Your task to perform on an android device: change keyboard looks Image 0: 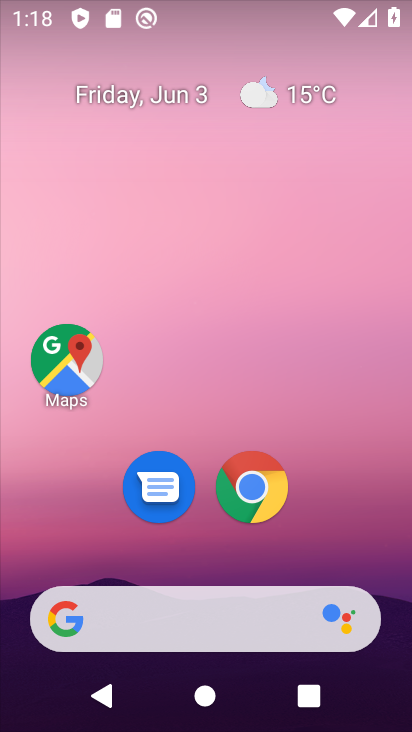
Step 0: drag from (158, 729) to (204, 85)
Your task to perform on an android device: change keyboard looks Image 1: 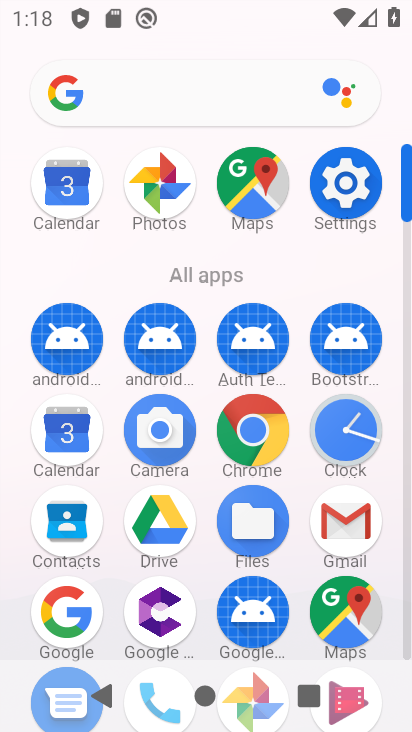
Step 1: click (366, 189)
Your task to perform on an android device: change keyboard looks Image 2: 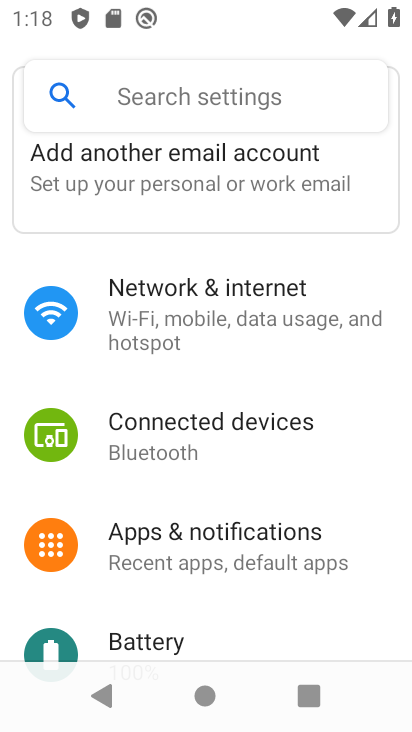
Step 2: drag from (285, 618) to (262, 225)
Your task to perform on an android device: change keyboard looks Image 3: 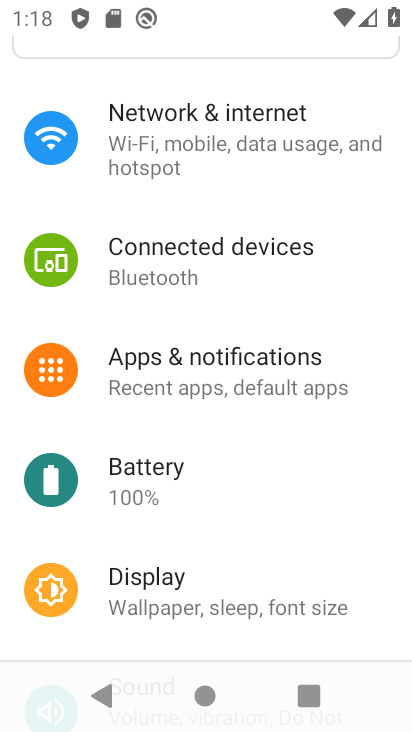
Step 3: drag from (262, 579) to (287, 292)
Your task to perform on an android device: change keyboard looks Image 4: 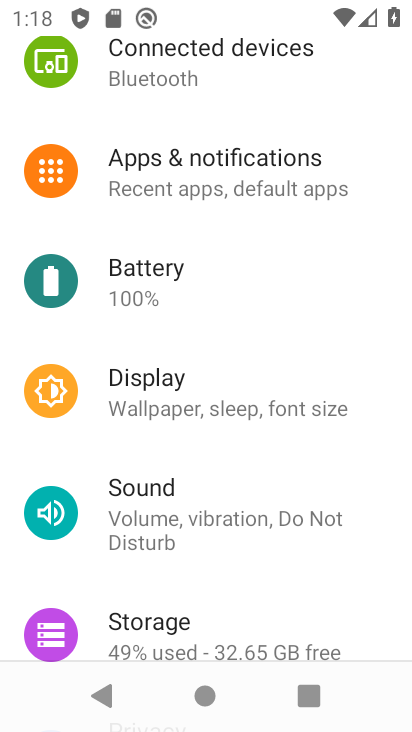
Step 4: drag from (242, 572) to (304, 223)
Your task to perform on an android device: change keyboard looks Image 5: 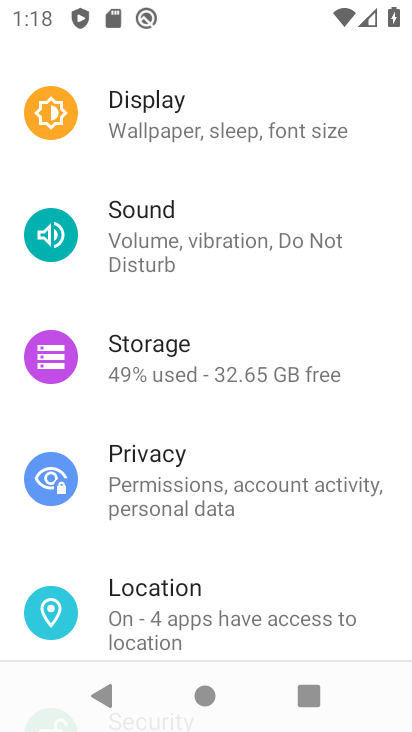
Step 5: drag from (282, 600) to (318, 294)
Your task to perform on an android device: change keyboard looks Image 6: 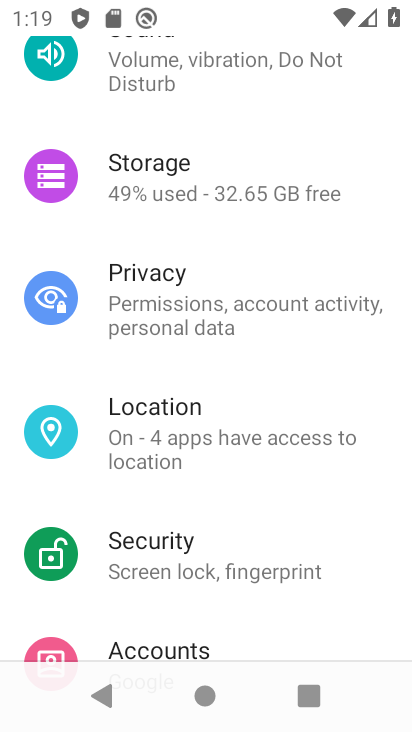
Step 6: drag from (245, 614) to (257, 361)
Your task to perform on an android device: change keyboard looks Image 7: 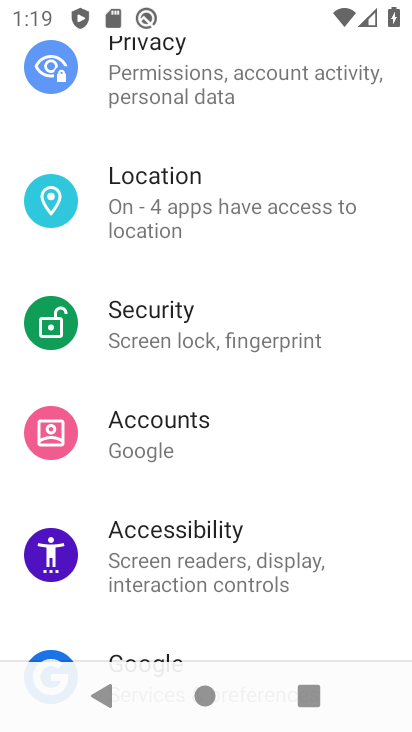
Step 7: drag from (207, 622) to (251, 292)
Your task to perform on an android device: change keyboard looks Image 8: 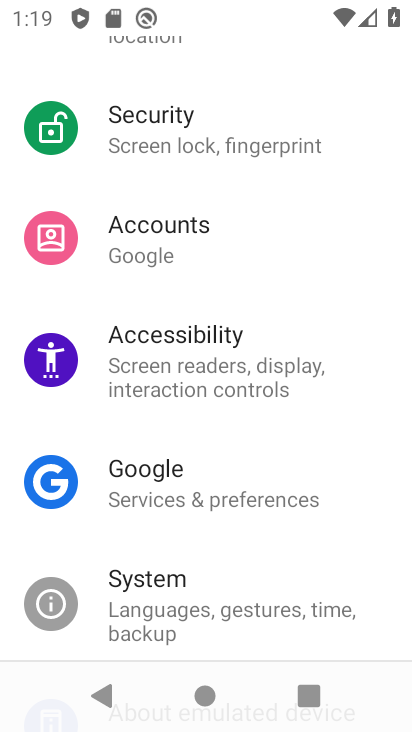
Step 8: click (157, 609)
Your task to perform on an android device: change keyboard looks Image 9: 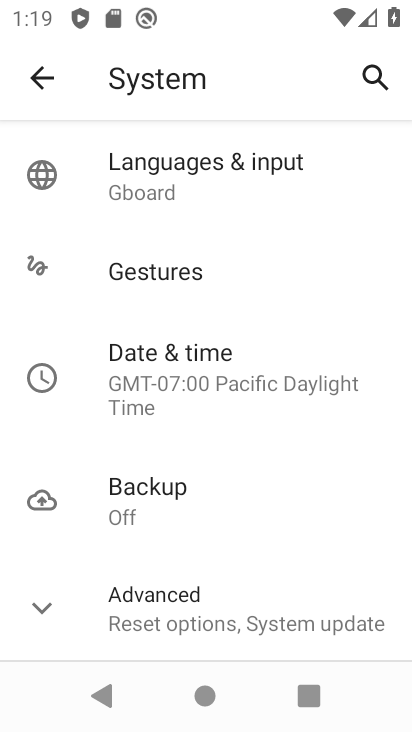
Step 9: click (172, 207)
Your task to perform on an android device: change keyboard looks Image 10: 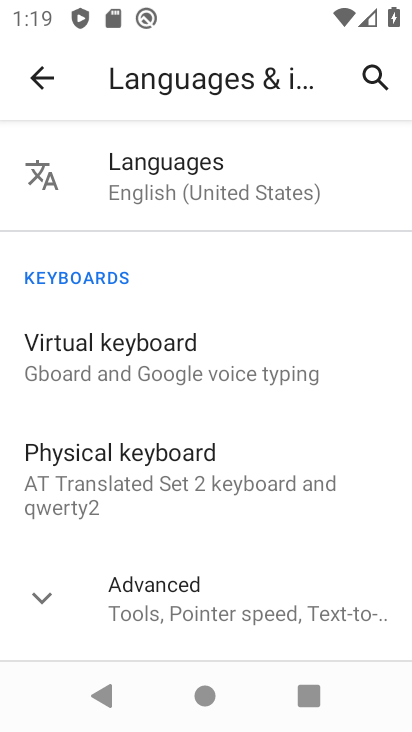
Step 10: click (104, 364)
Your task to perform on an android device: change keyboard looks Image 11: 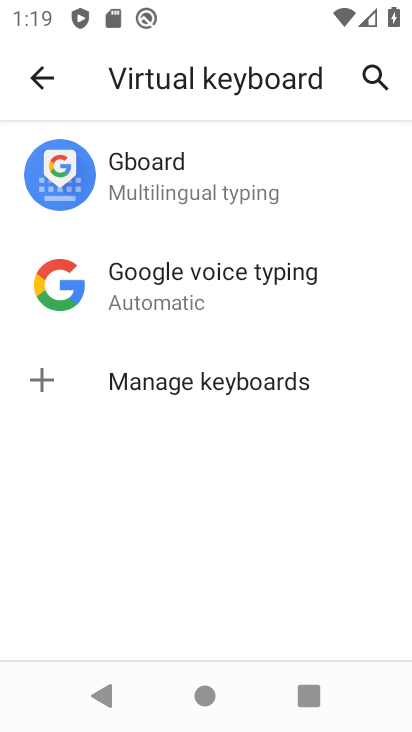
Step 11: click (167, 197)
Your task to perform on an android device: change keyboard looks Image 12: 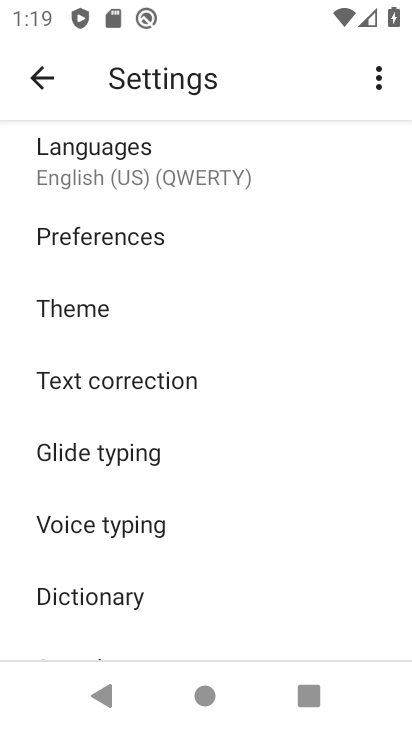
Step 12: click (75, 317)
Your task to perform on an android device: change keyboard looks Image 13: 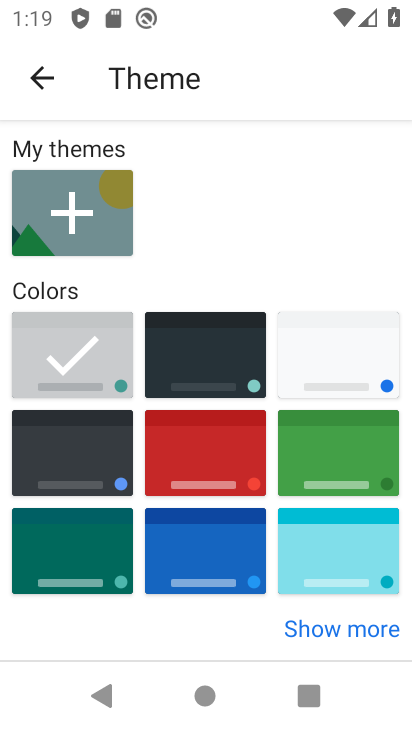
Step 13: click (194, 357)
Your task to perform on an android device: change keyboard looks Image 14: 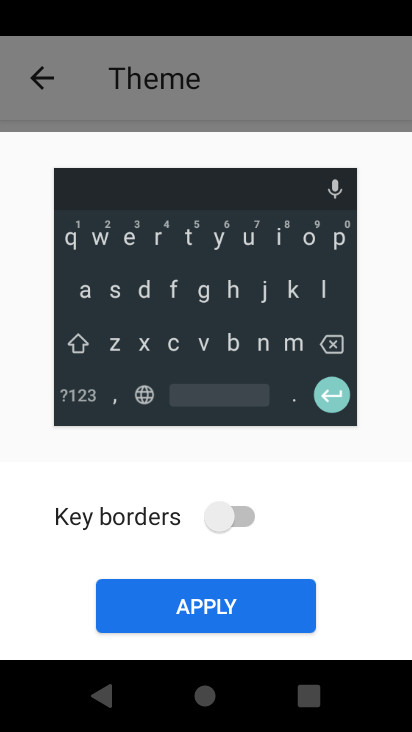
Step 14: click (281, 617)
Your task to perform on an android device: change keyboard looks Image 15: 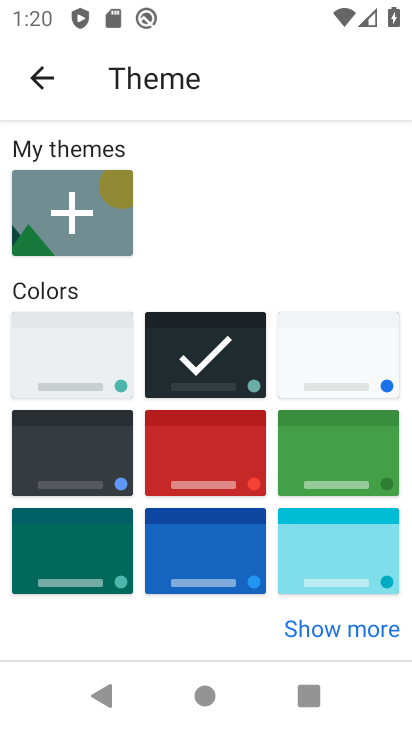
Step 15: task complete